Your task to perform on an android device: change alarm snooze length Image 0: 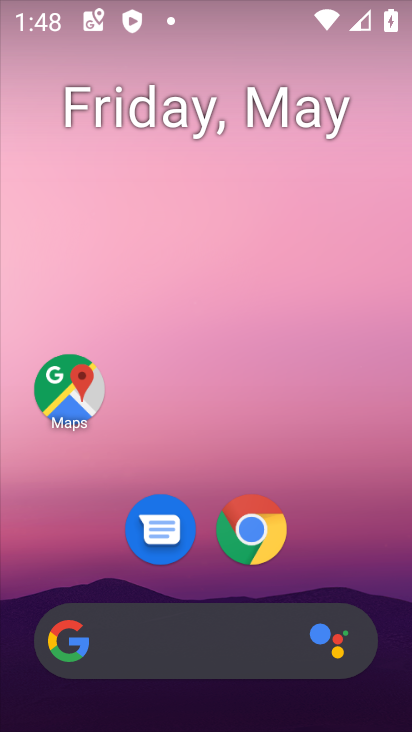
Step 0: drag from (329, 555) to (296, 116)
Your task to perform on an android device: change alarm snooze length Image 1: 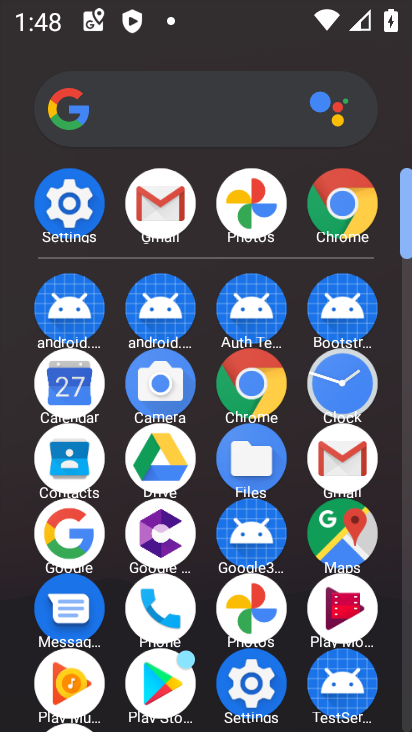
Step 1: click (343, 402)
Your task to perform on an android device: change alarm snooze length Image 2: 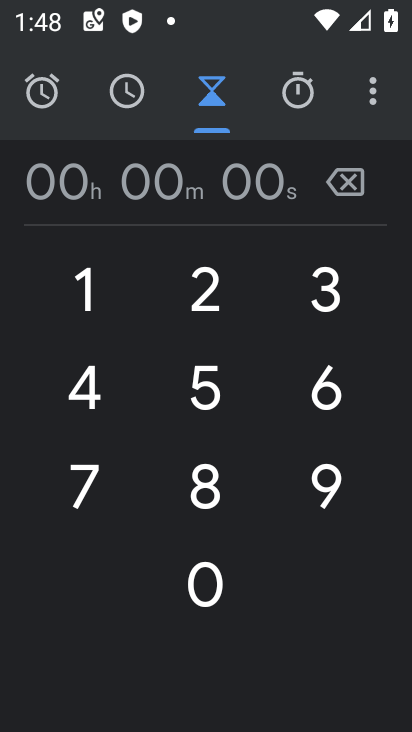
Step 2: click (377, 76)
Your task to perform on an android device: change alarm snooze length Image 3: 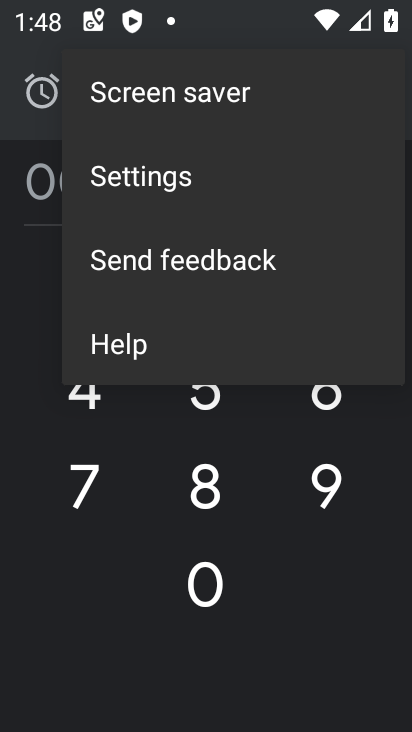
Step 3: click (232, 194)
Your task to perform on an android device: change alarm snooze length Image 4: 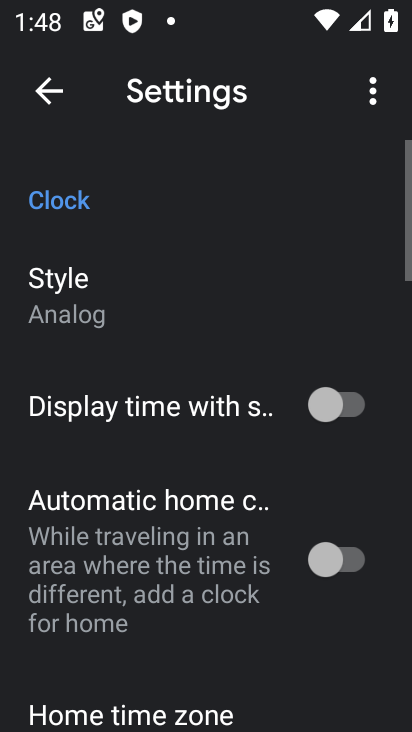
Step 4: drag from (219, 578) to (203, 443)
Your task to perform on an android device: change alarm snooze length Image 5: 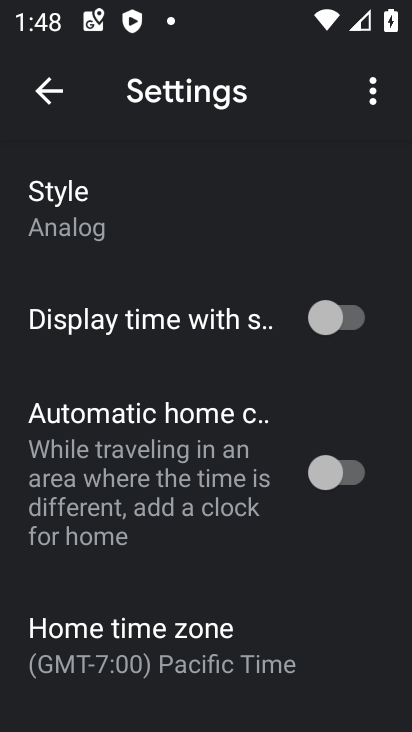
Step 5: drag from (208, 574) to (159, 198)
Your task to perform on an android device: change alarm snooze length Image 6: 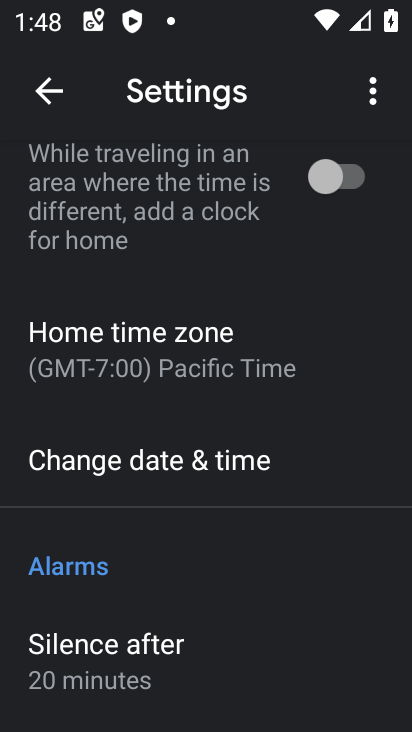
Step 6: drag from (171, 529) to (130, 128)
Your task to perform on an android device: change alarm snooze length Image 7: 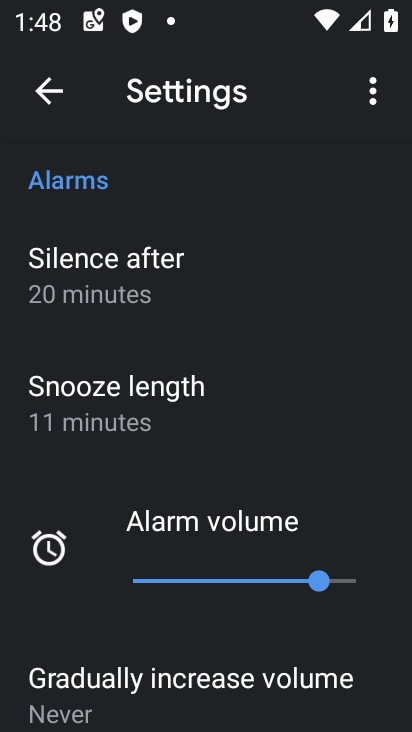
Step 7: click (161, 379)
Your task to perform on an android device: change alarm snooze length Image 8: 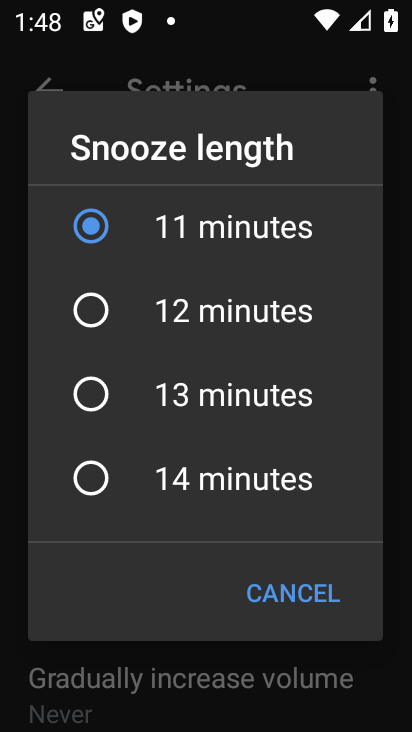
Step 8: click (132, 295)
Your task to perform on an android device: change alarm snooze length Image 9: 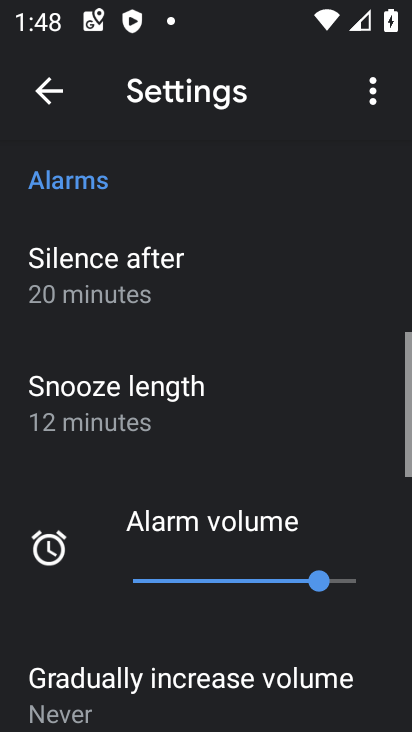
Step 9: task complete